Your task to perform on an android device: turn off priority inbox in the gmail app Image 0: 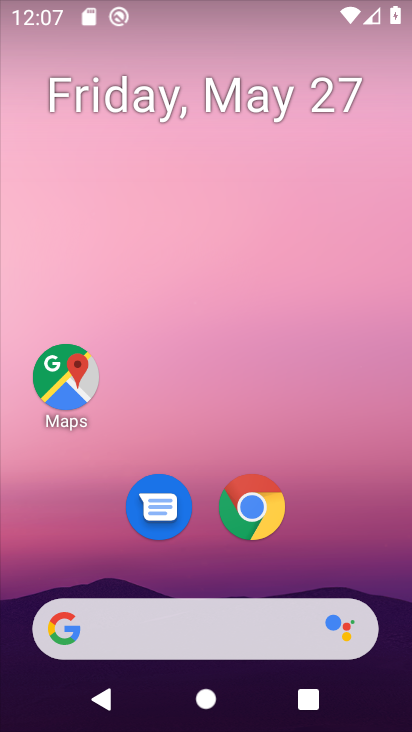
Step 0: drag from (74, 608) to (190, 111)
Your task to perform on an android device: turn off priority inbox in the gmail app Image 1: 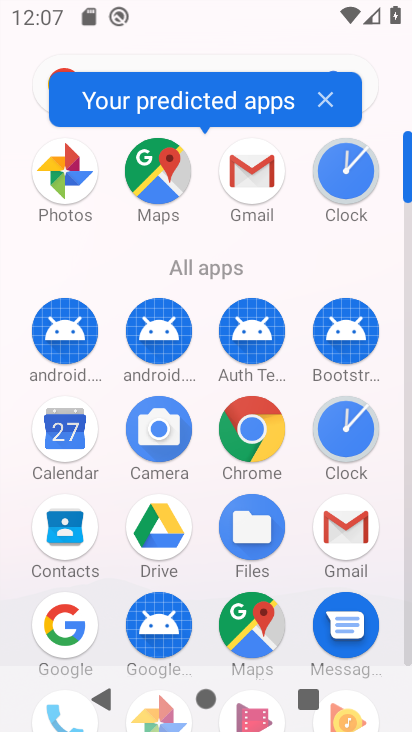
Step 1: drag from (201, 561) to (254, 298)
Your task to perform on an android device: turn off priority inbox in the gmail app Image 2: 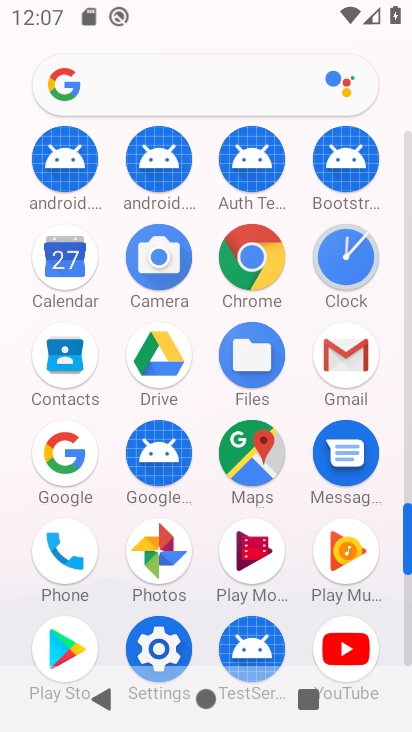
Step 2: click (344, 362)
Your task to perform on an android device: turn off priority inbox in the gmail app Image 3: 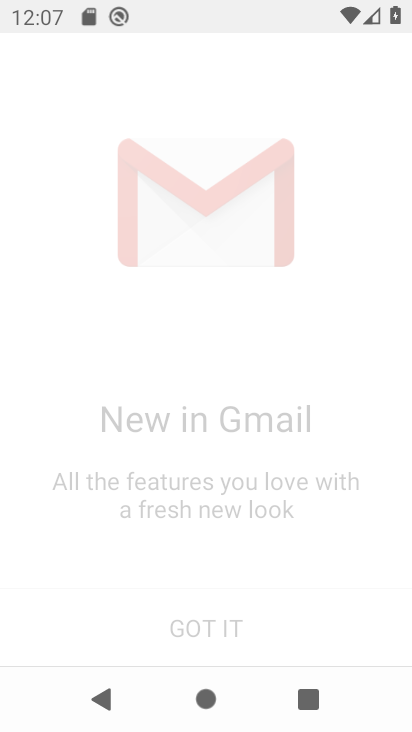
Step 3: click (345, 361)
Your task to perform on an android device: turn off priority inbox in the gmail app Image 4: 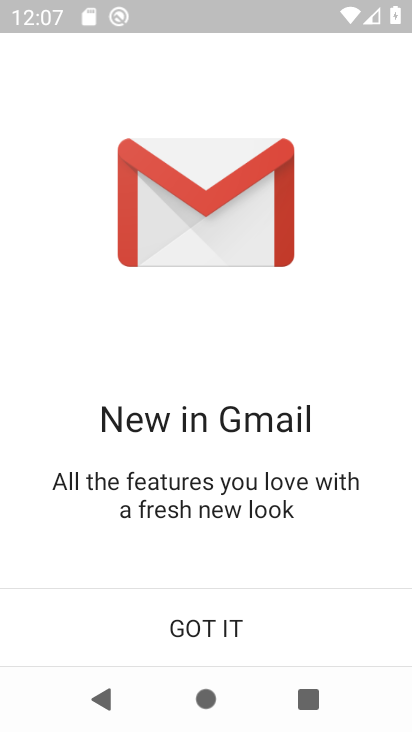
Step 4: click (256, 647)
Your task to perform on an android device: turn off priority inbox in the gmail app Image 5: 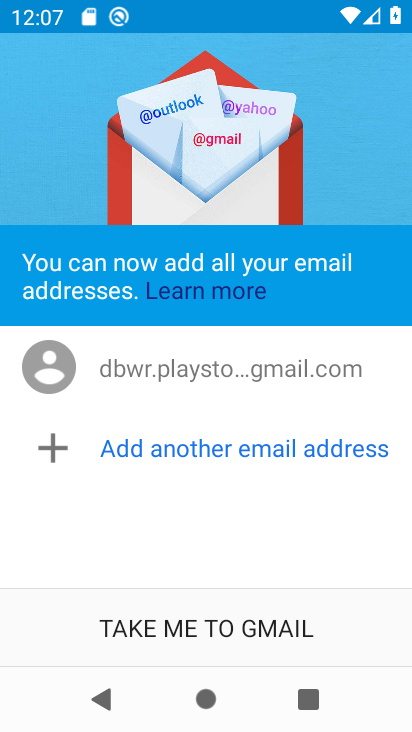
Step 5: click (255, 642)
Your task to perform on an android device: turn off priority inbox in the gmail app Image 6: 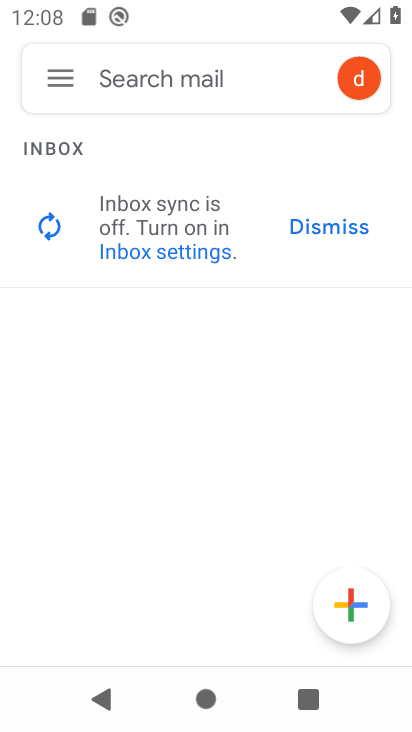
Step 6: click (74, 92)
Your task to perform on an android device: turn off priority inbox in the gmail app Image 7: 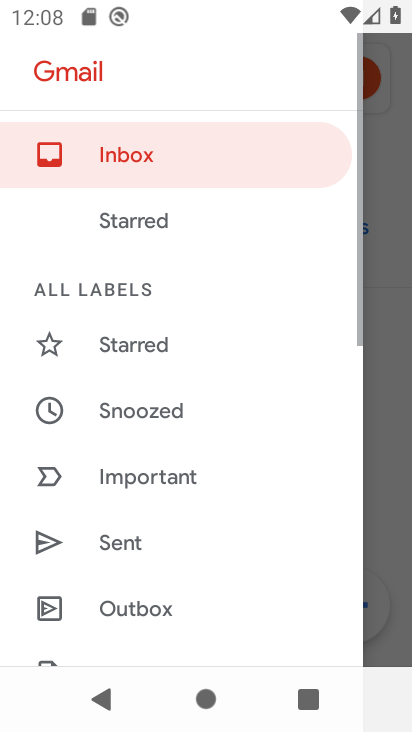
Step 7: drag from (159, 592) to (252, 108)
Your task to perform on an android device: turn off priority inbox in the gmail app Image 8: 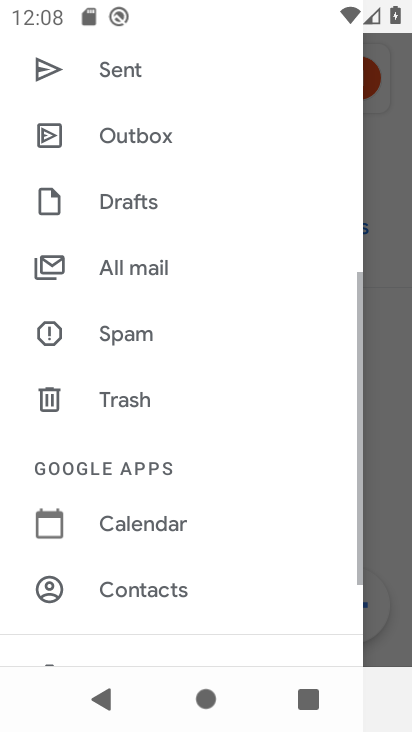
Step 8: drag from (164, 560) to (243, 146)
Your task to perform on an android device: turn off priority inbox in the gmail app Image 9: 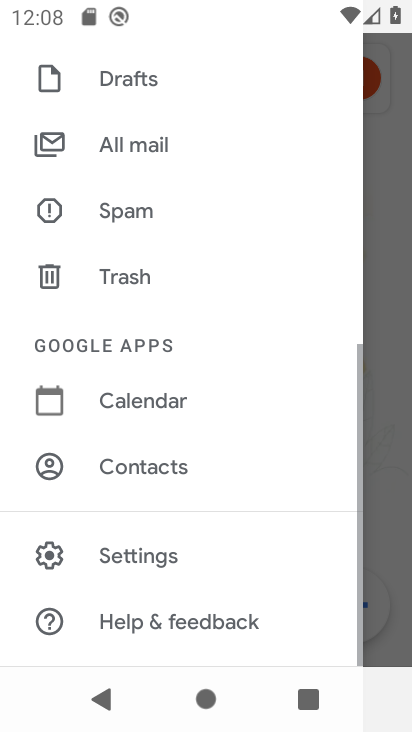
Step 9: click (198, 574)
Your task to perform on an android device: turn off priority inbox in the gmail app Image 10: 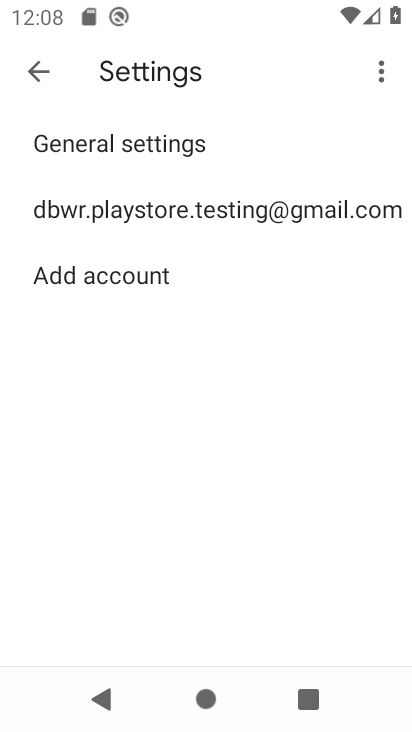
Step 10: click (267, 220)
Your task to perform on an android device: turn off priority inbox in the gmail app Image 11: 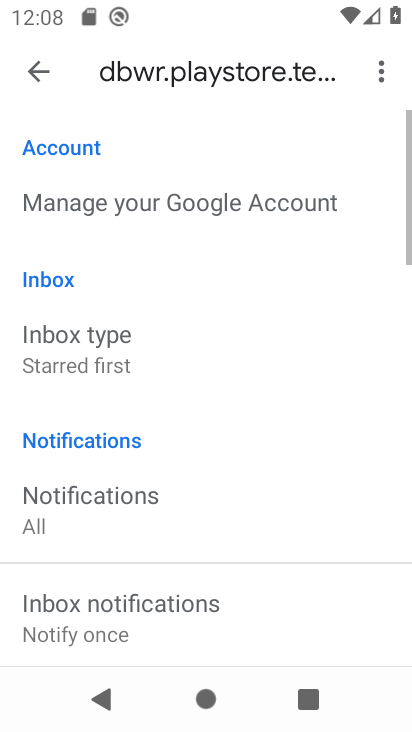
Step 11: drag from (223, 631) to (244, 449)
Your task to perform on an android device: turn off priority inbox in the gmail app Image 12: 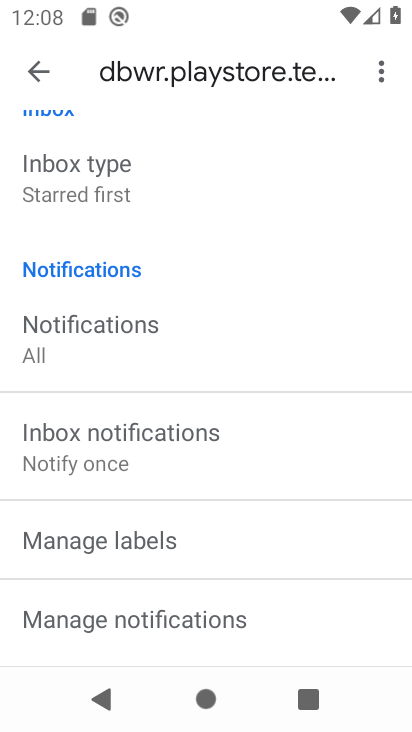
Step 12: click (224, 171)
Your task to perform on an android device: turn off priority inbox in the gmail app Image 13: 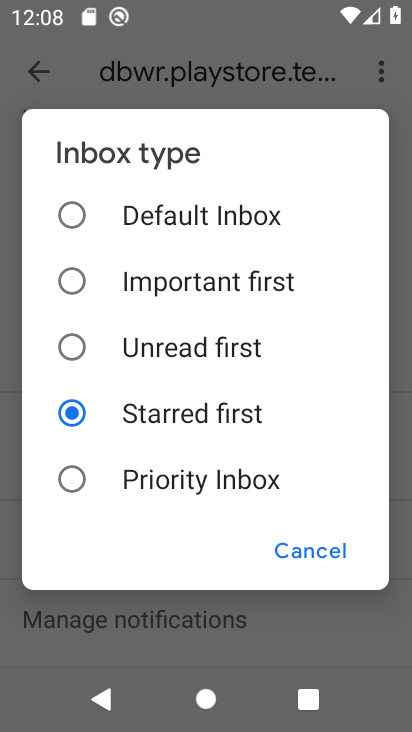
Step 13: task complete